Your task to perform on an android device: Go to Google Image 0: 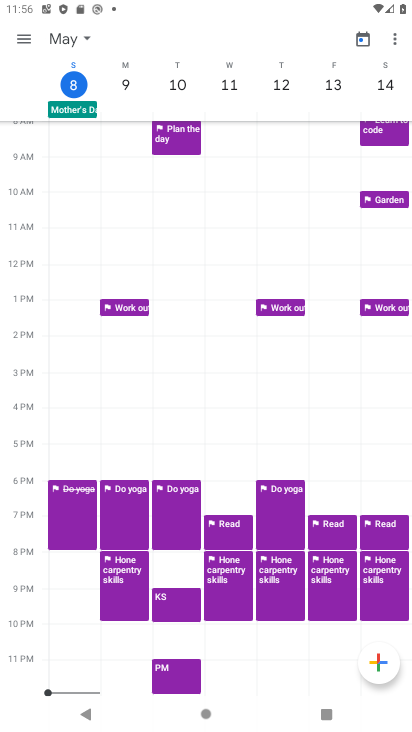
Step 0: press home button
Your task to perform on an android device: Go to Google Image 1: 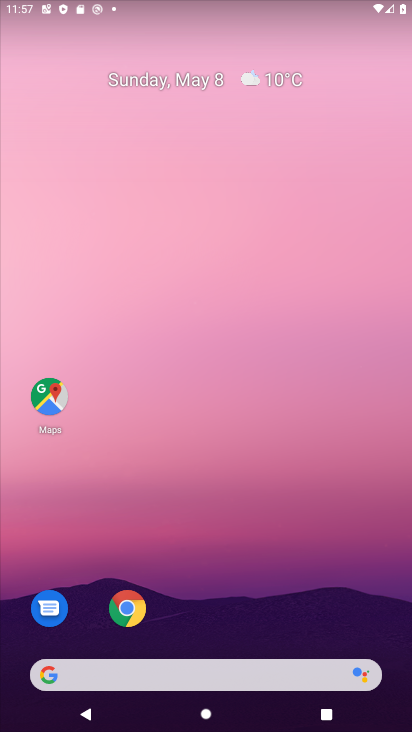
Step 1: click (115, 600)
Your task to perform on an android device: Go to Google Image 2: 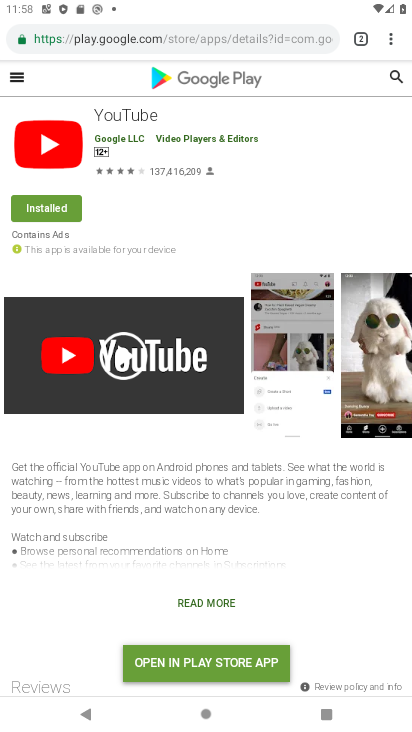
Step 2: click (270, 48)
Your task to perform on an android device: Go to Google Image 3: 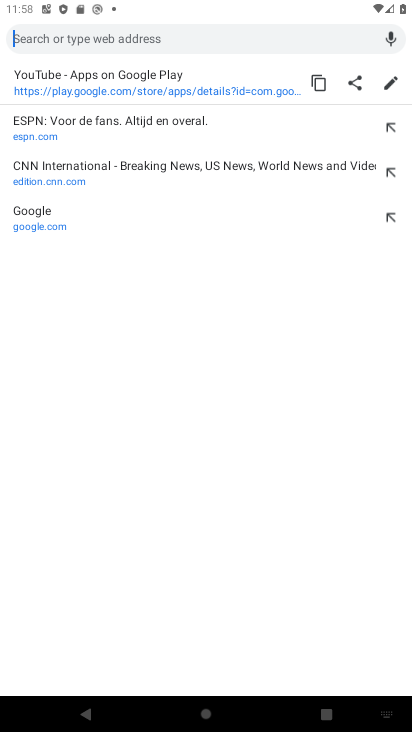
Step 3: click (120, 220)
Your task to perform on an android device: Go to Google Image 4: 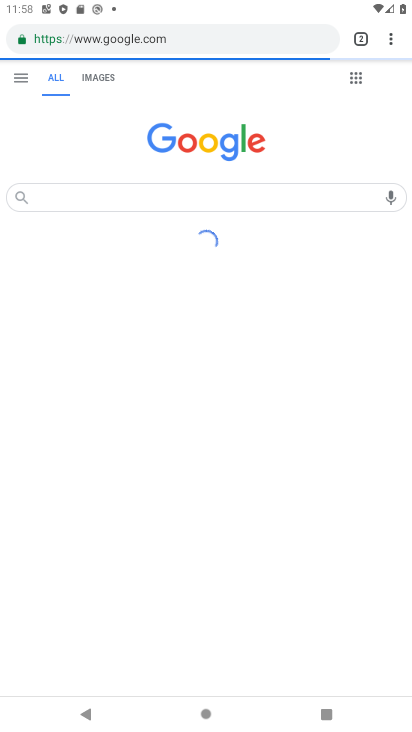
Step 4: task complete